Your task to perform on an android device: Show me productivity apps on the Play Store Image 0: 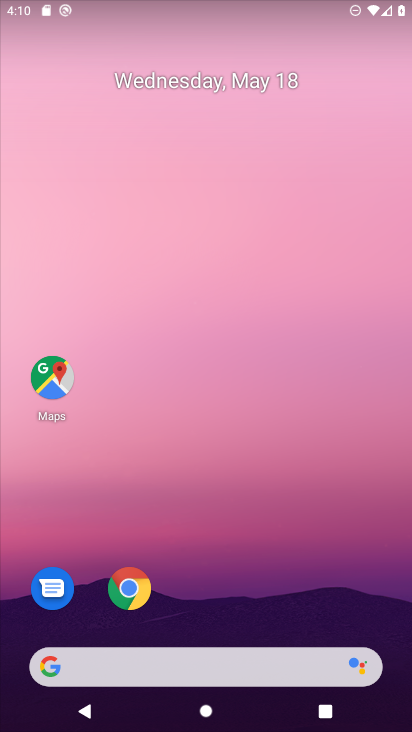
Step 0: drag from (225, 590) to (264, 121)
Your task to perform on an android device: Show me productivity apps on the Play Store Image 1: 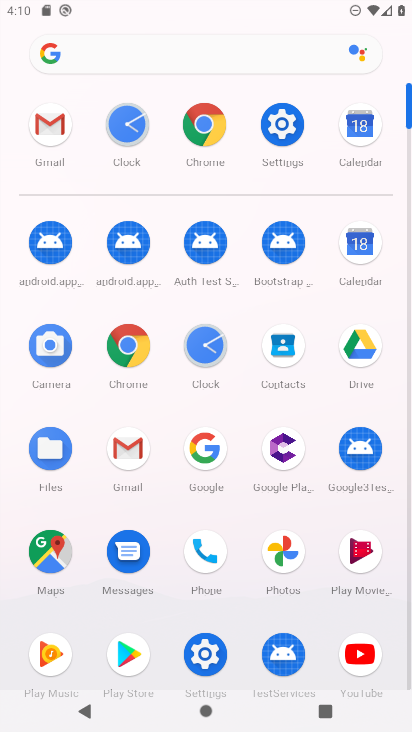
Step 1: click (107, 667)
Your task to perform on an android device: Show me productivity apps on the Play Store Image 2: 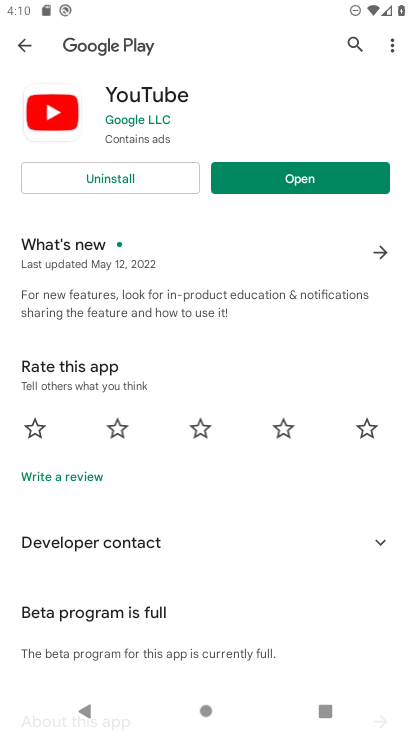
Step 2: click (21, 44)
Your task to perform on an android device: Show me productivity apps on the Play Store Image 3: 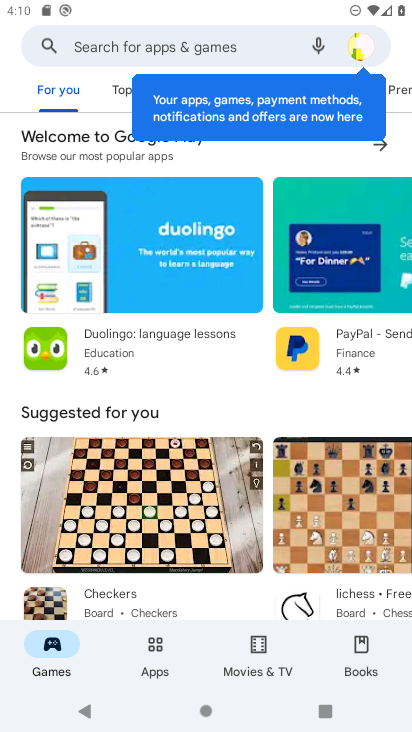
Step 3: click (149, 655)
Your task to perform on an android device: Show me productivity apps on the Play Store Image 4: 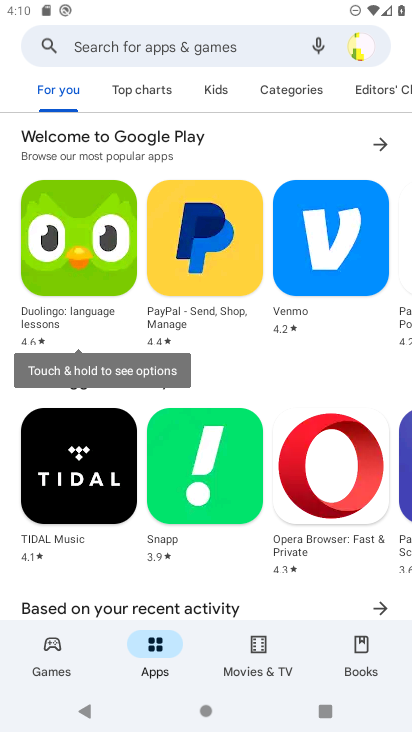
Step 4: click (144, 108)
Your task to perform on an android device: Show me productivity apps on the Play Store Image 5: 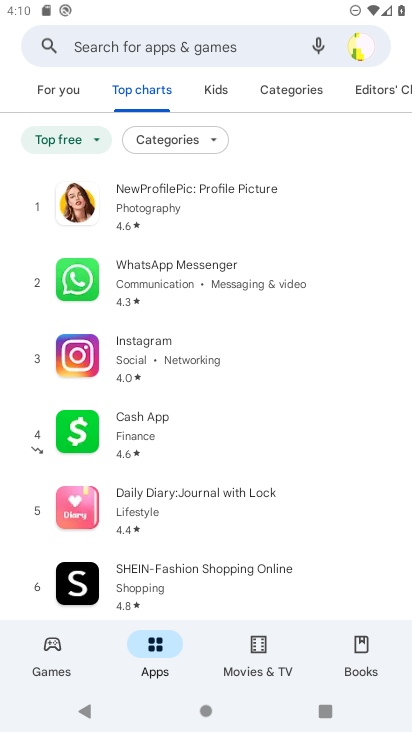
Step 5: click (192, 146)
Your task to perform on an android device: Show me productivity apps on the Play Store Image 6: 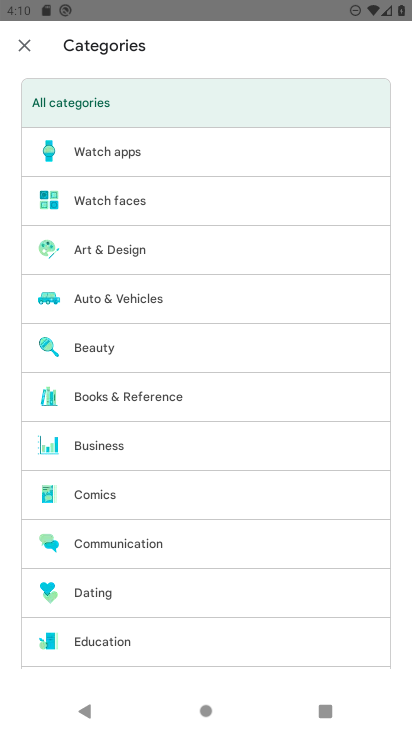
Step 6: drag from (179, 625) to (194, 273)
Your task to perform on an android device: Show me productivity apps on the Play Store Image 7: 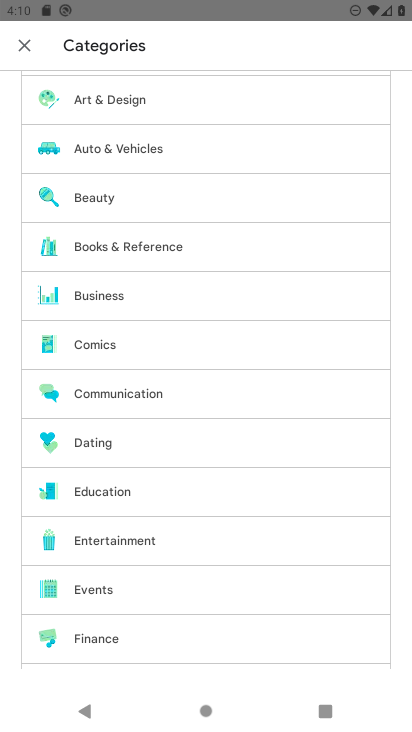
Step 7: drag from (170, 566) to (190, 214)
Your task to perform on an android device: Show me productivity apps on the Play Store Image 8: 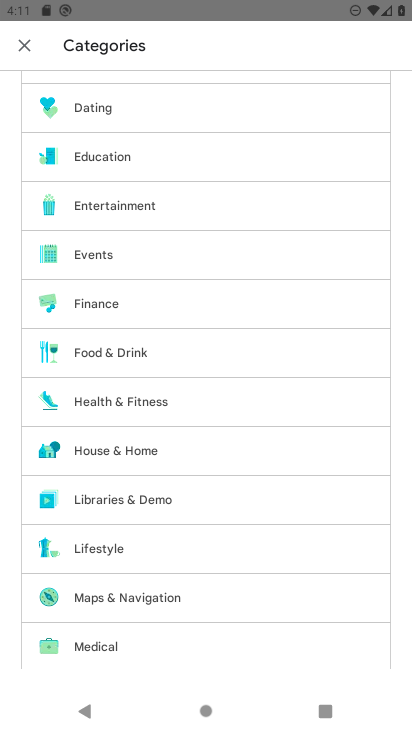
Step 8: drag from (176, 598) to (204, 330)
Your task to perform on an android device: Show me productivity apps on the Play Store Image 9: 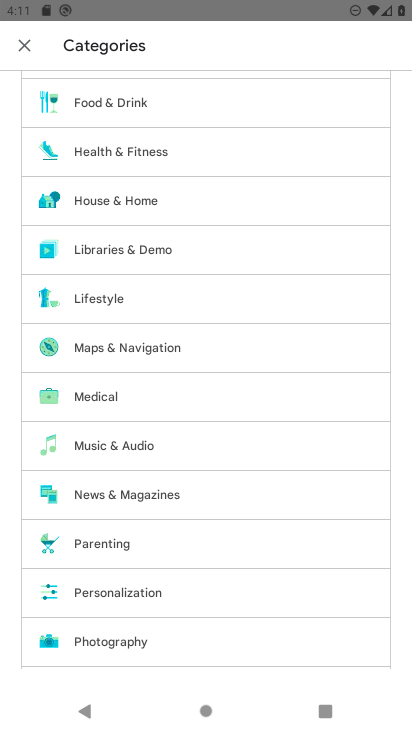
Step 9: drag from (181, 633) to (232, 258)
Your task to perform on an android device: Show me productivity apps on the Play Store Image 10: 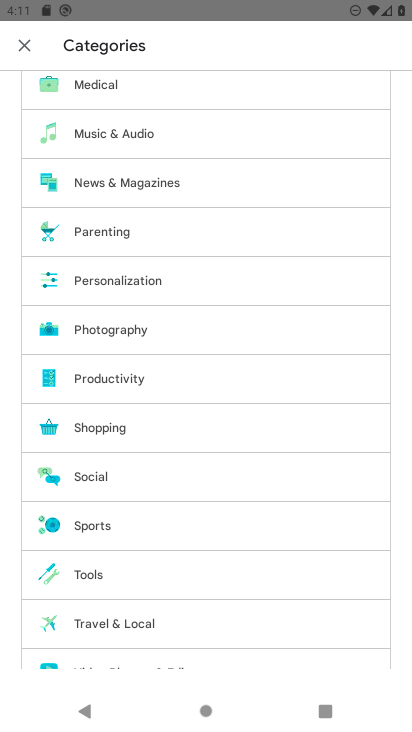
Step 10: click (230, 376)
Your task to perform on an android device: Show me productivity apps on the Play Store Image 11: 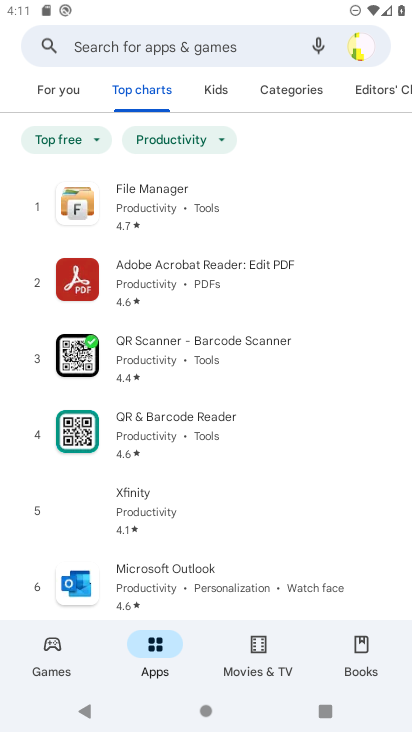
Step 11: task complete